Your task to perform on an android device: empty trash in google photos Image 0: 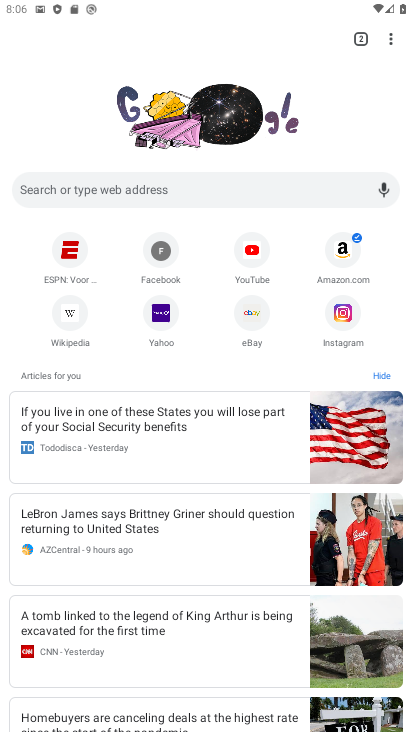
Step 0: press home button
Your task to perform on an android device: empty trash in google photos Image 1: 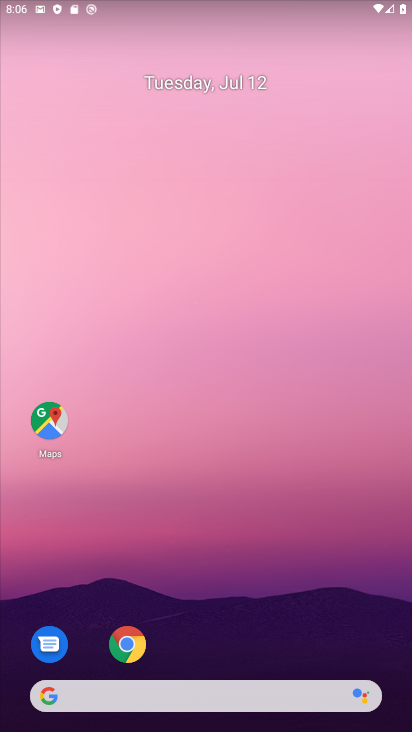
Step 1: drag from (193, 700) to (174, 184)
Your task to perform on an android device: empty trash in google photos Image 2: 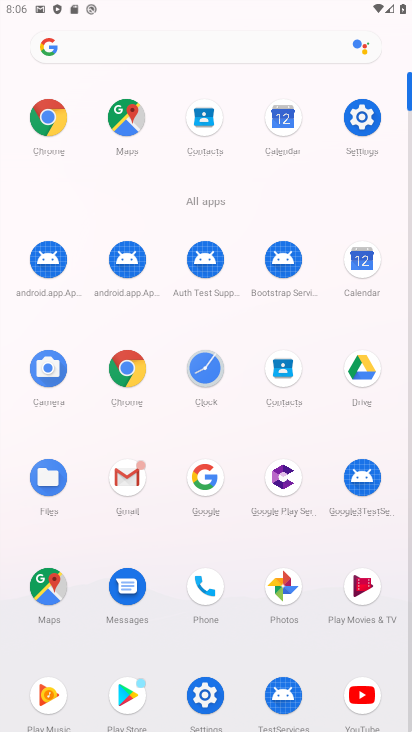
Step 2: click (283, 584)
Your task to perform on an android device: empty trash in google photos Image 3: 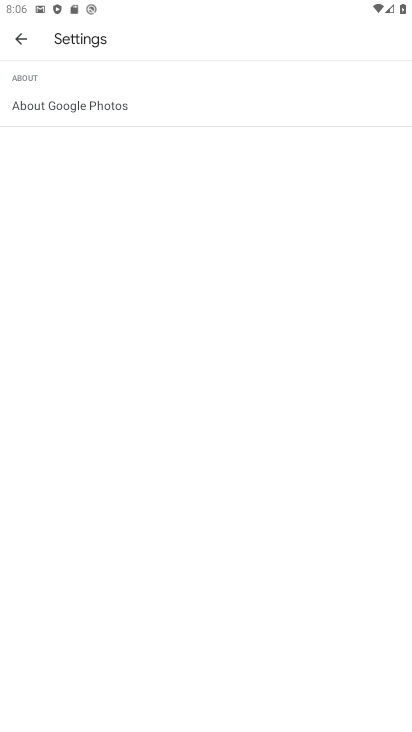
Step 3: press back button
Your task to perform on an android device: empty trash in google photos Image 4: 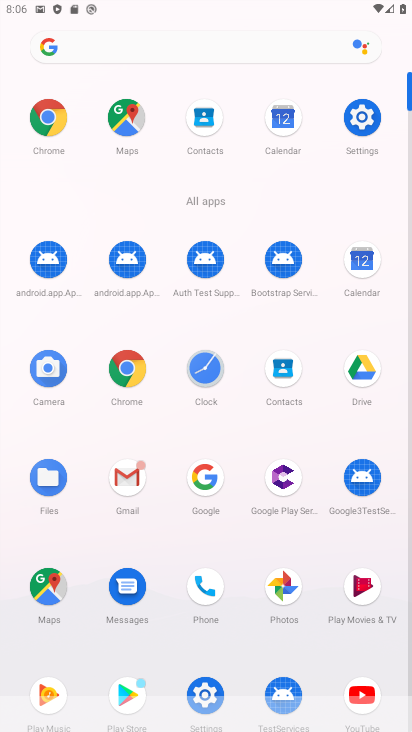
Step 4: click (282, 586)
Your task to perform on an android device: empty trash in google photos Image 5: 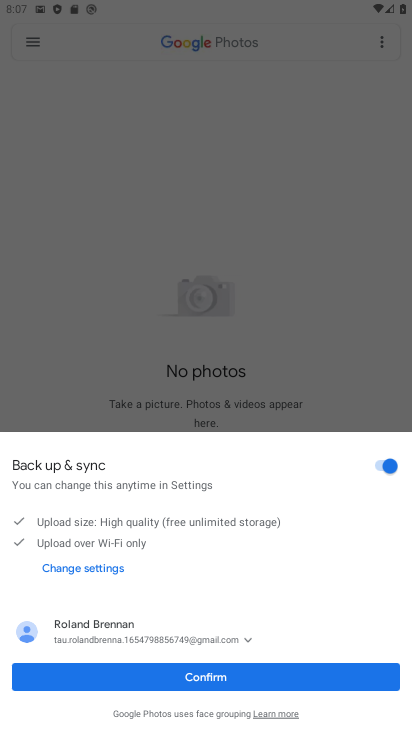
Step 5: click (218, 673)
Your task to perform on an android device: empty trash in google photos Image 6: 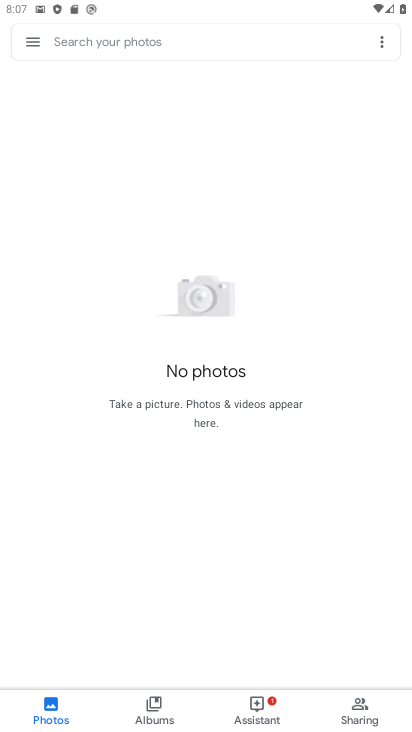
Step 6: click (34, 38)
Your task to perform on an android device: empty trash in google photos Image 7: 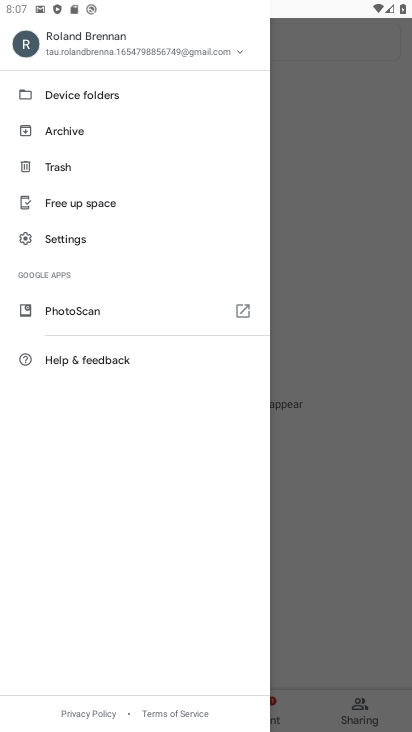
Step 7: click (56, 164)
Your task to perform on an android device: empty trash in google photos Image 8: 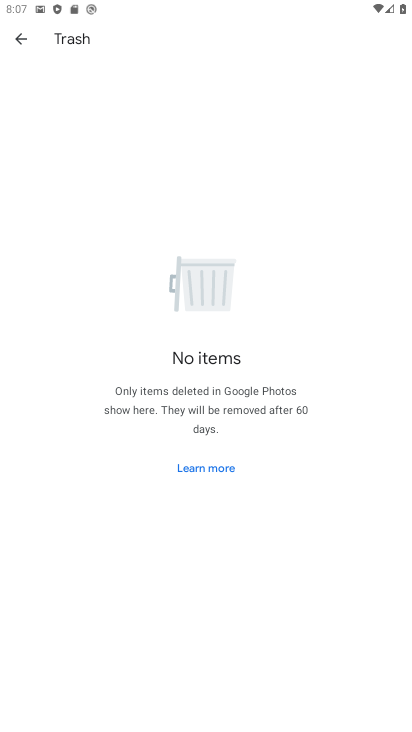
Step 8: task complete